Your task to perform on an android device: Open Android settings Image 0: 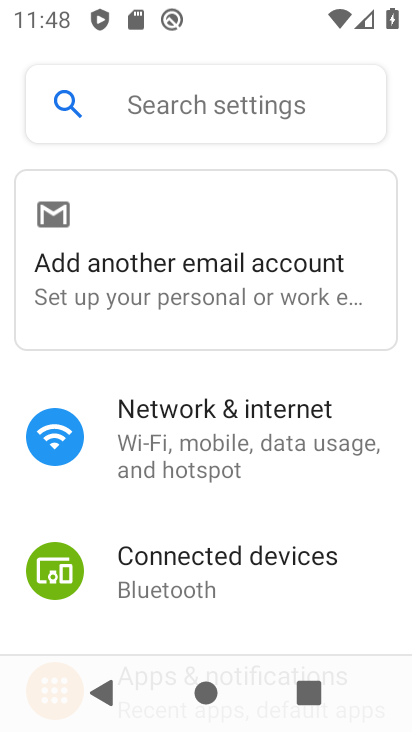
Step 0: task complete